Your task to perform on an android device: Search for sushi restaurants on Maps Image 0: 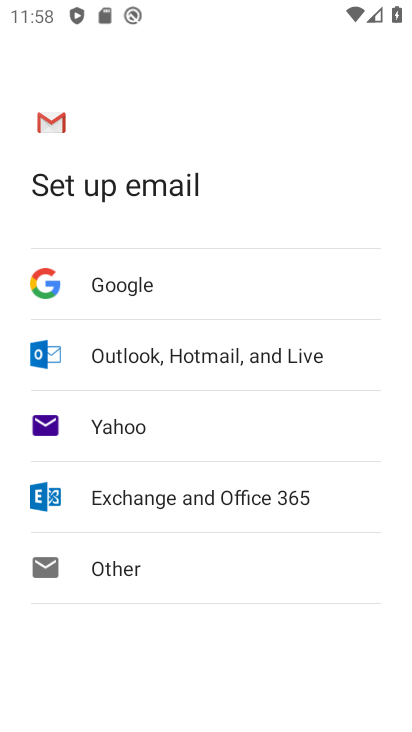
Step 0: press home button
Your task to perform on an android device: Search for sushi restaurants on Maps Image 1: 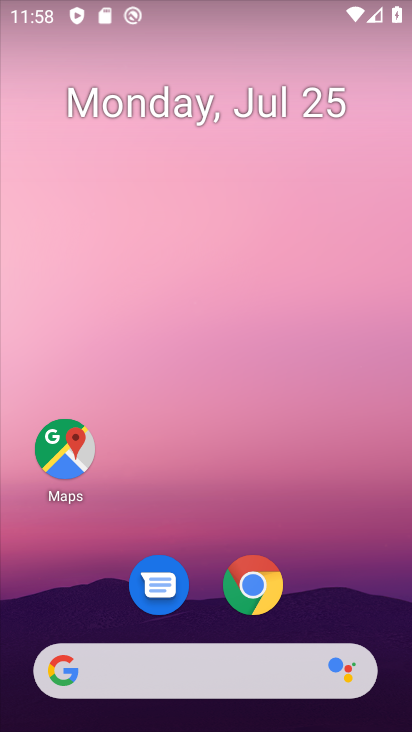
Step 1: click (68, 448)
Your task to perform on an android device: Search for sushi restaurants on Maps Image 2: 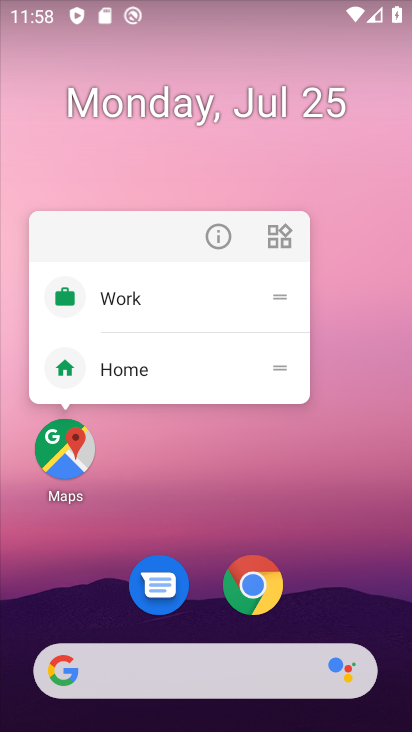
Step 2: click (68, 447)
Your task to perform on an android device: Search for sushi restaurants on Maps Image 3: 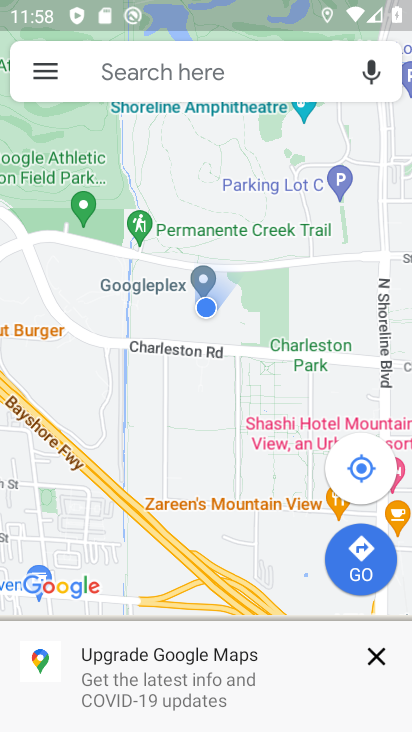
Step 3: click (210, 59)
Your task to perform on an android device: Search for sushi restaurants on Maps Image 4: 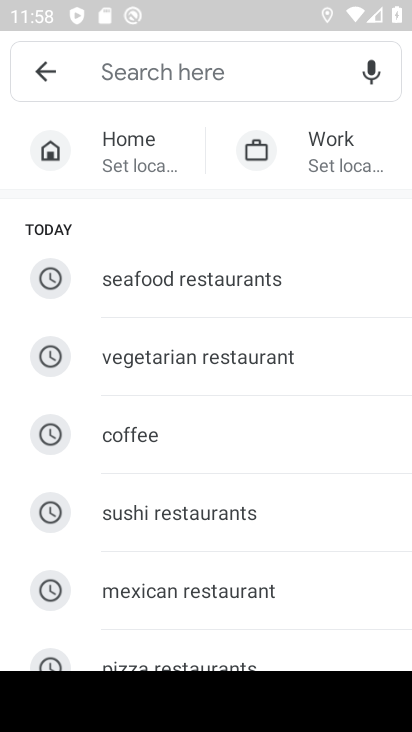
Step 4: click (191, 515)
Your task to perform on an android device: Search for sushi restaurants on Maps Image 5: 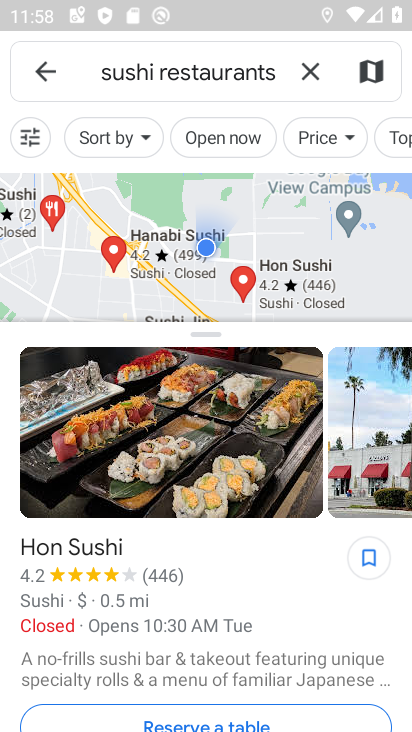
Step 5: task complete